Your task to perform on an android device: Go to wifi settings Image 0: 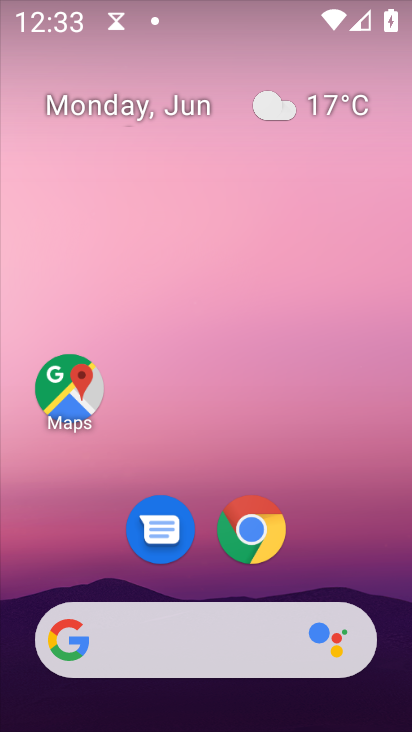
Step 0: drag from (366, 545) to (405, 120)
Your task to perform on an android device: Go to wifi settings Image 1: 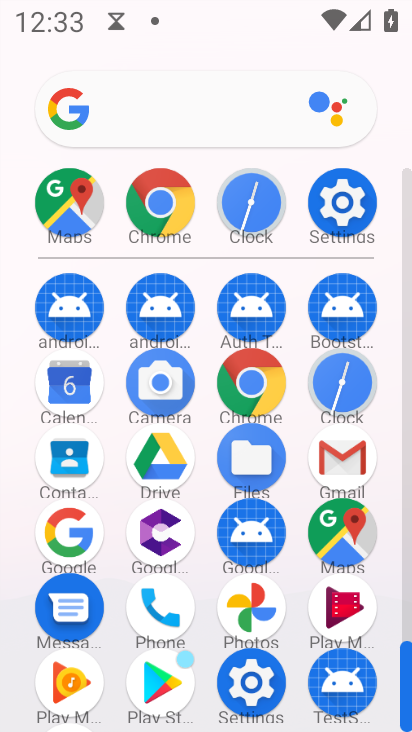
Step 1: click (326, 220)
Your task to perform on an android device: Go to wifi settings Image 2: 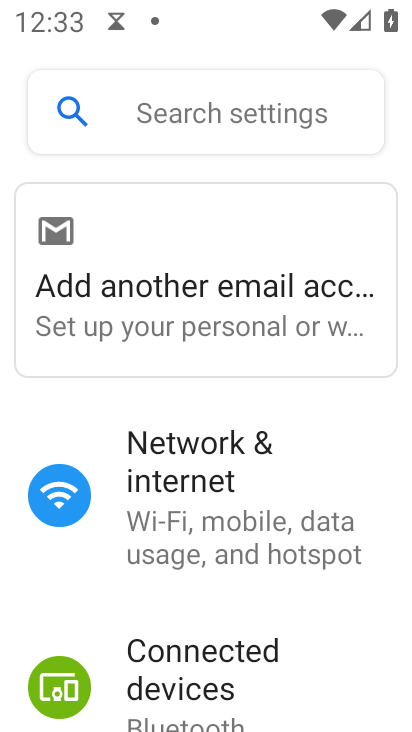
Step 2: click (225, 445)
Your task to perform on an android device: Go to wifi settings Image 3: 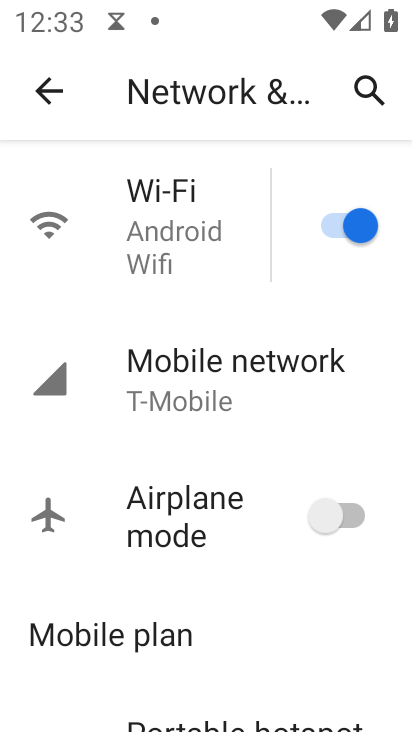
Step 3: click (227, 235)
Your task to perform on an android device: Go to wifi settings Image 4: 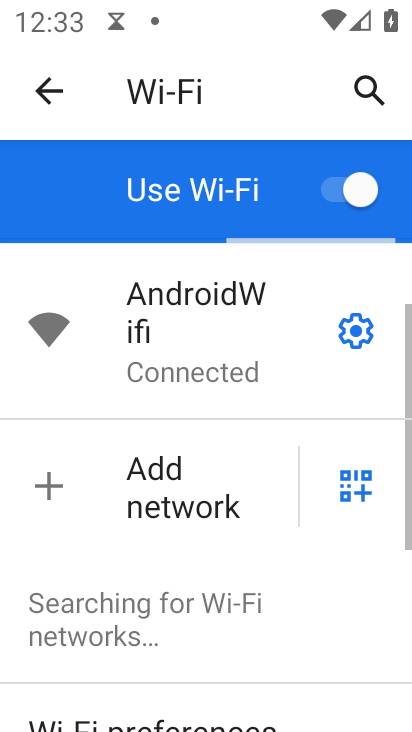
Step 4: task complete